Your task to perform on an android device: Open the web browser Image 0: 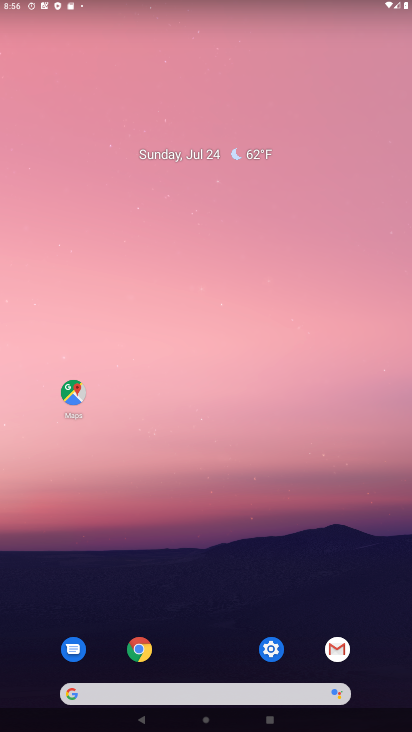
Step 0: click (133, 661)
Your task to perform on an android device: Open the web browser Image 1: 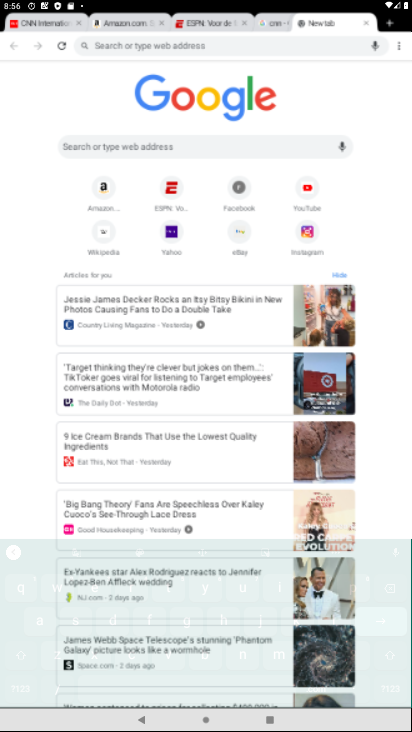
Step 1: click (104, 47)
Your task to perform on an android device: Open the web browser Image 2: 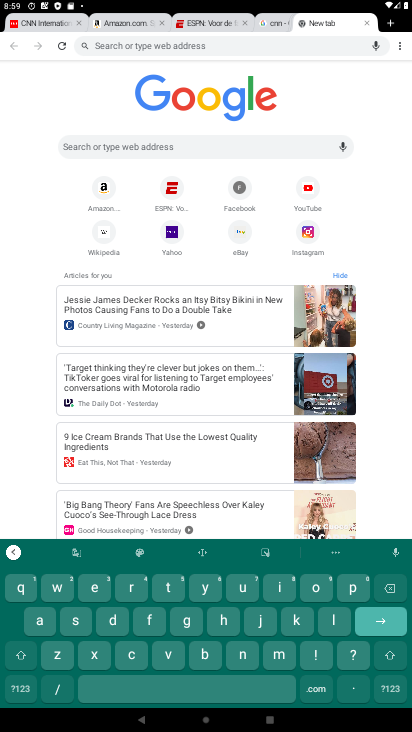
Step 2: task complete